Your task to perform on an android device: change your default location settings in chrome Image 0: 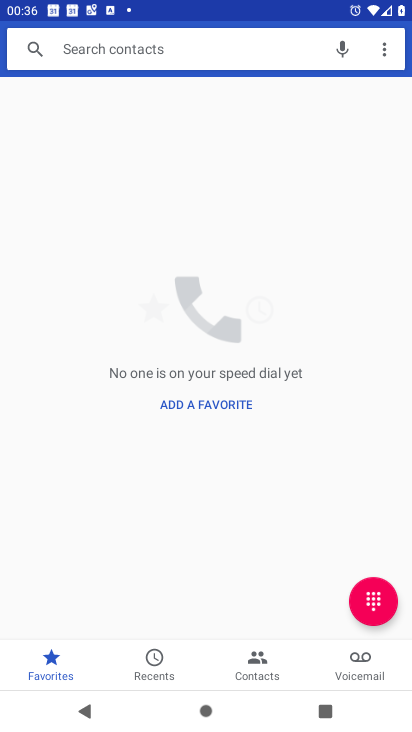
Step 0: press home button
Your task to perform on an android device: change your default location settings in chrome Image 1: 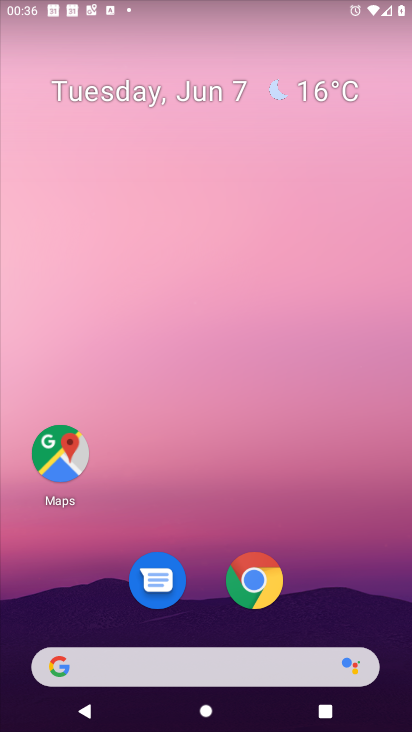
Step 1: drag from (364, 539) to (206, 0)
Your task to perform on an android device: change your default location settings in chrome Image 2: 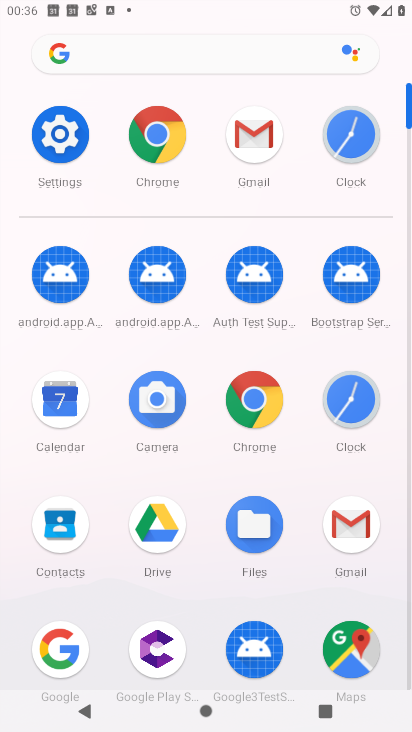
Step 2: click (164, 154)
Your task to perform on an android device: change your default location settings in chrome Image 3: 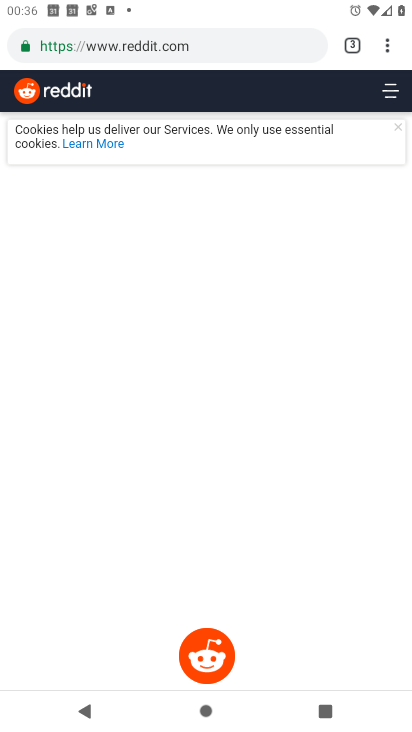
Step 3: drag from (387, 45) to (240, 553)
Your task to perform on an android device: change your default location settings in chrome Image 4: 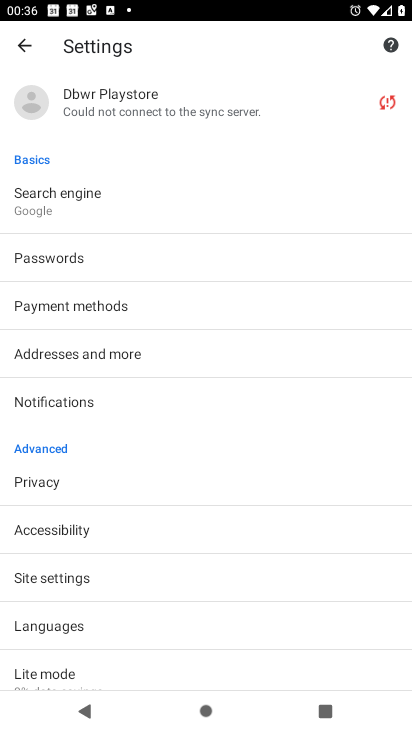
Step 4: drag from (140, 638) to (189, 119)
Your task to perform on an android device: change your default location settings in chrome Image 5: 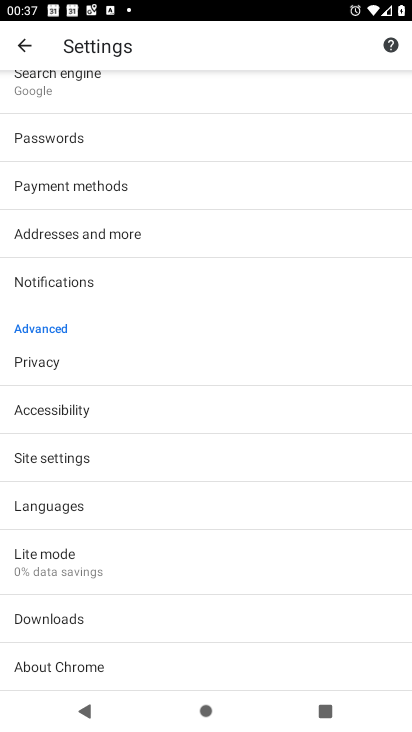
Step 5: click (62, 457)
Your task to perform on an android device: change your default location settings in chrome Image 6: 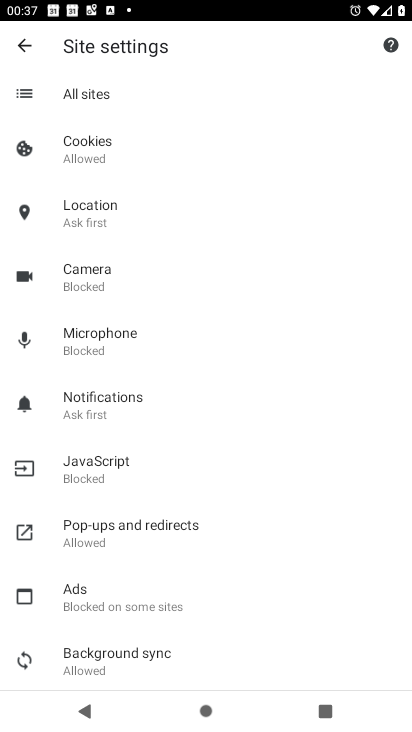
Step 6: click (97, 211)
Your task to perform on an android device: change your default location settings in chrome Image 7: 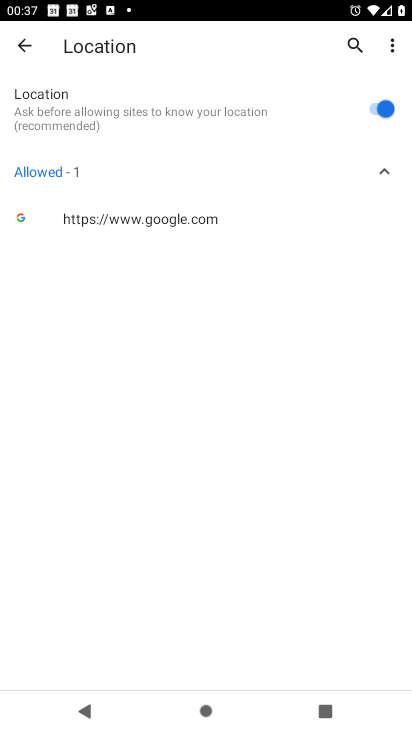
Step 7: click (389, 107)
Your task to perform on an android device: change your default location settings in chrome Image 8: 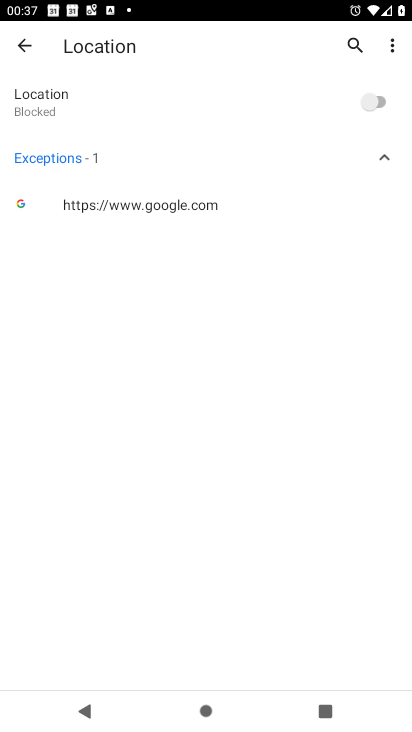
Step 8: task complete